Your task to perform on an android device: set the stopwatch Image 0: 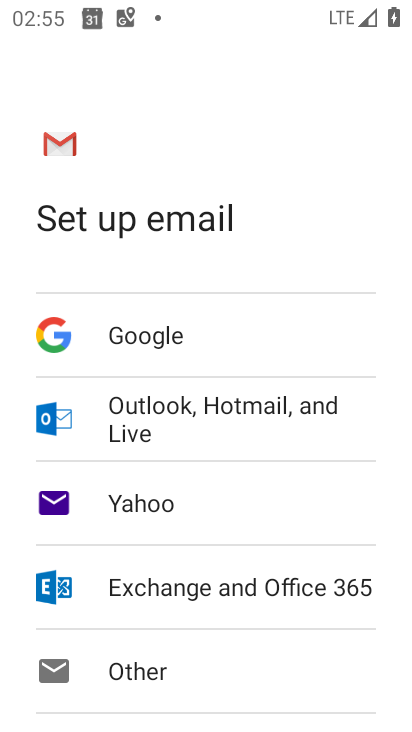
Step 0: press back button
Your task to perform on an android device: set the stopwatch Image 1: 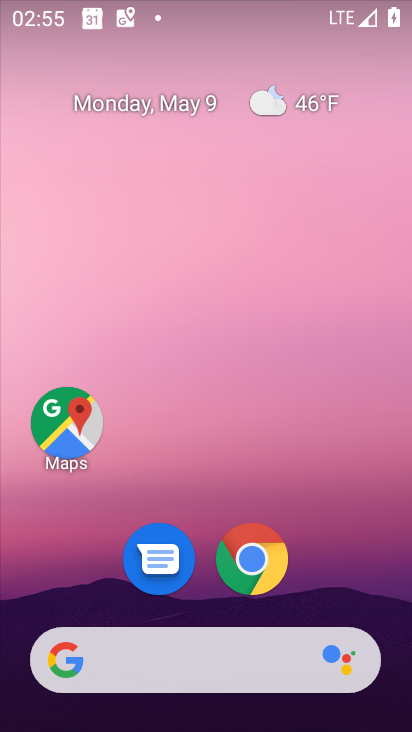
Step 1: drag from (356, 574) to (338, 9)
Your task to perform on an android device: set the stopwatch Image 2: 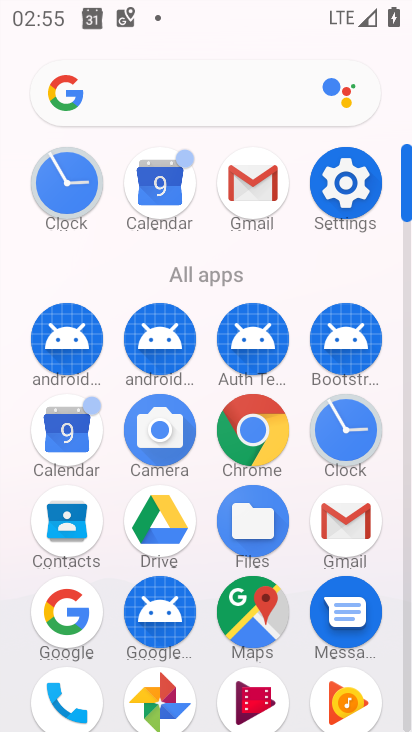
Step 2: click (346, 428)
Your task to perform on an android device: set the stopwatch Image 3: 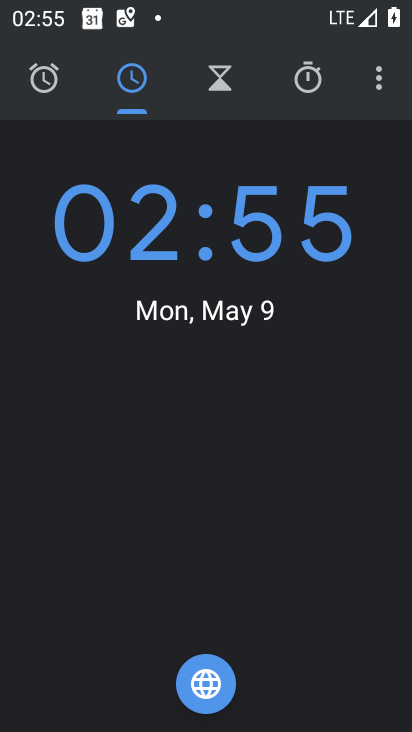
Step 3: click (314, 77)
Your task to perform on an android device: set the stopwatch Image 4: 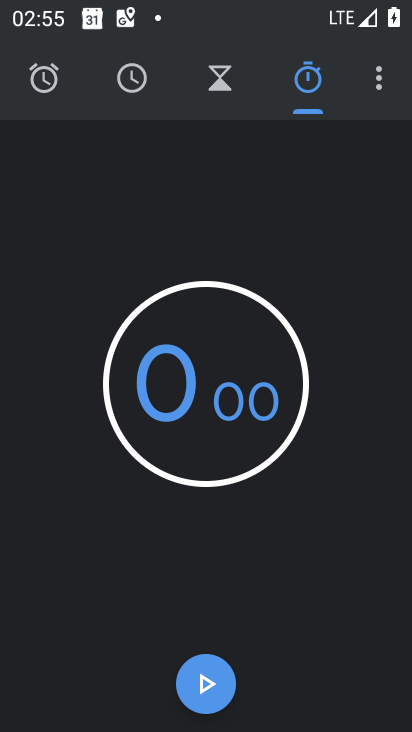
Step 4: click (226, 387)
Your task to perform on an android device: set the stopwatch Image 5: 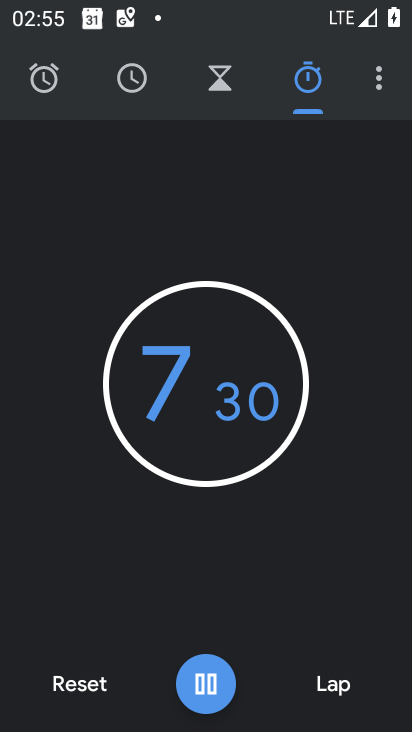
Step 5: click (207, 675)
Your task to perform on an android device: set the stopwatch Image 6: 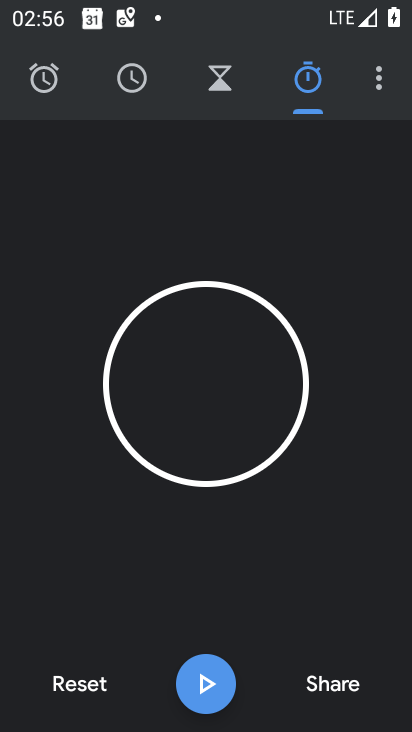
Step 6: task complete